Your task to perform on an android device: turn vacation reply on in the gmail app Image 0: 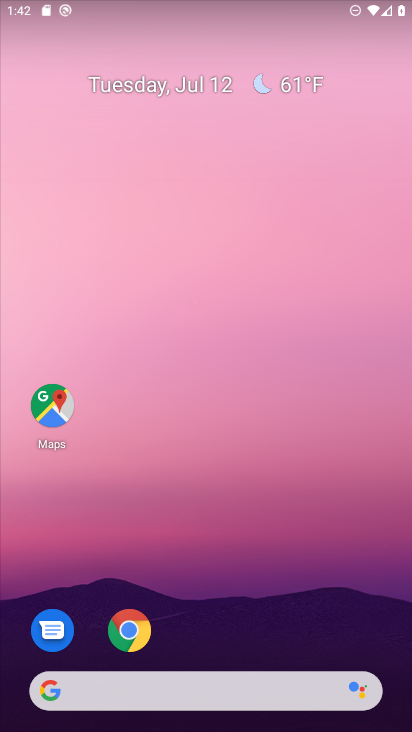
Step 0: drag from (254, 550) to (254, 102)
Your task to perform on an android device: turn vacation reply on in the gmail app Image 1: 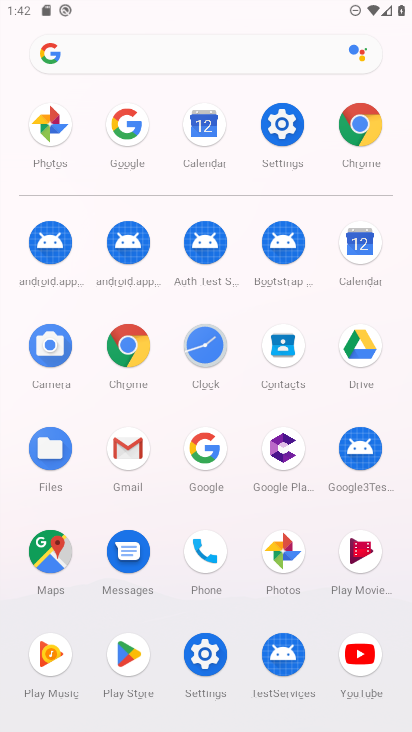
Step 1: click (121, 459)
Your task to perform on an android device: turn vacation reply on in the gmail app Image 2: 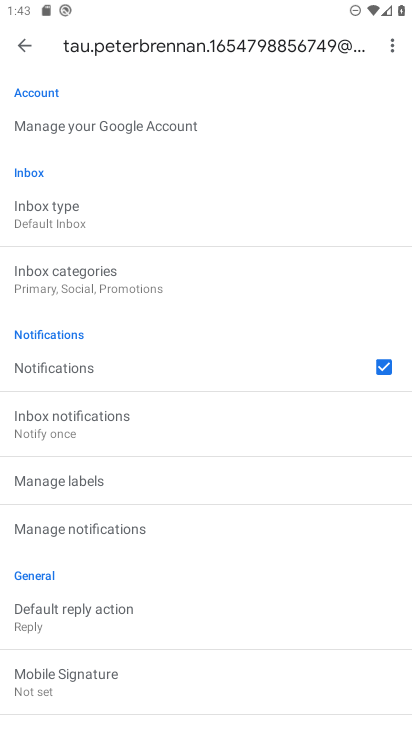
Step 2: drag from (131, 577) to (191, 320)
Your task to perform on an android device: turn vacation reply on in the gmail app Image 3: 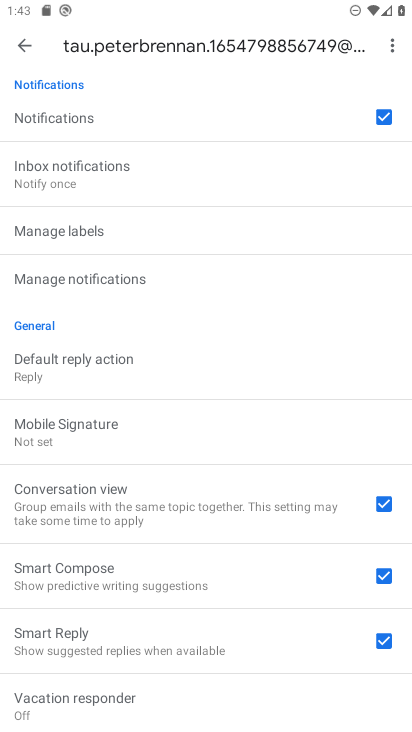
Step 3: click (88, 705)
Your task to perform on an android device: turn vacation reply on in the gmail app Image 4: 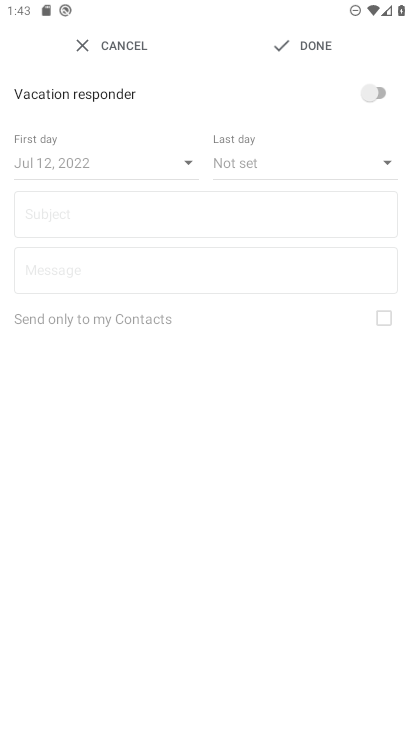
Step 4: click (384, 91)
Your task to perform on an android device: turn vacation reply on in the gmail app Image 5: 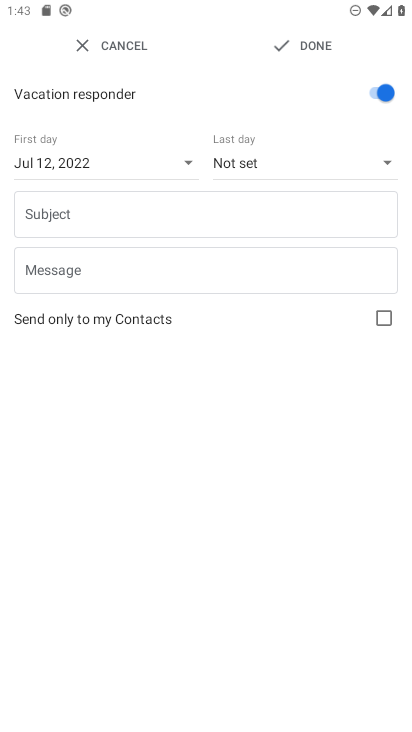
Step 5: task complete